Your task to perform on an android device: Search for "razer naga" on amazon, select the first entry, and add it to the cart. Image 0: 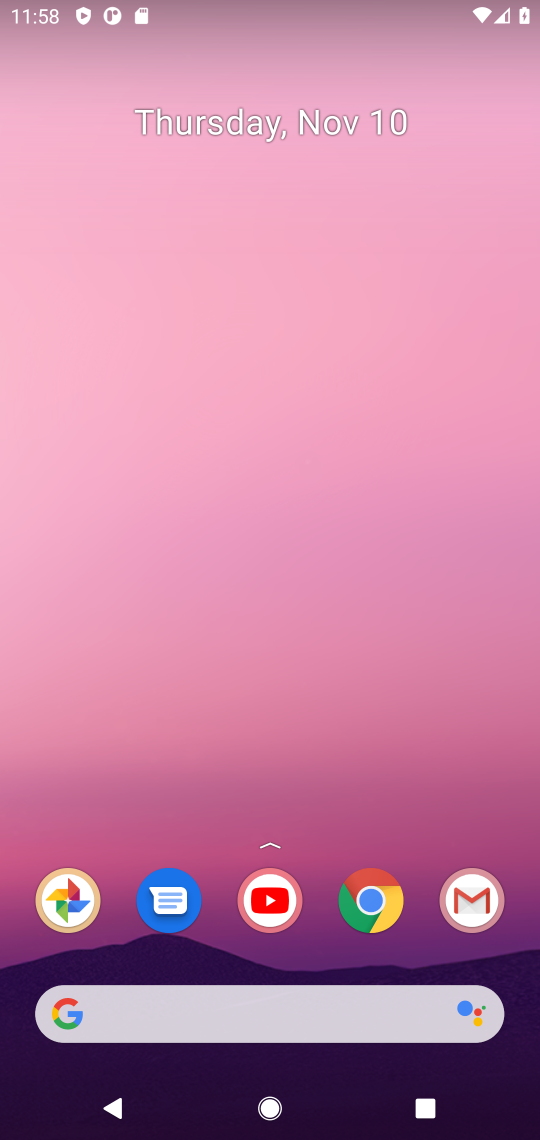
Step 0: click (360, 893)
Your task to perform on an android device: Search for "razer naga" on amazon, select the first entry, and add it to the cart. Image 1: 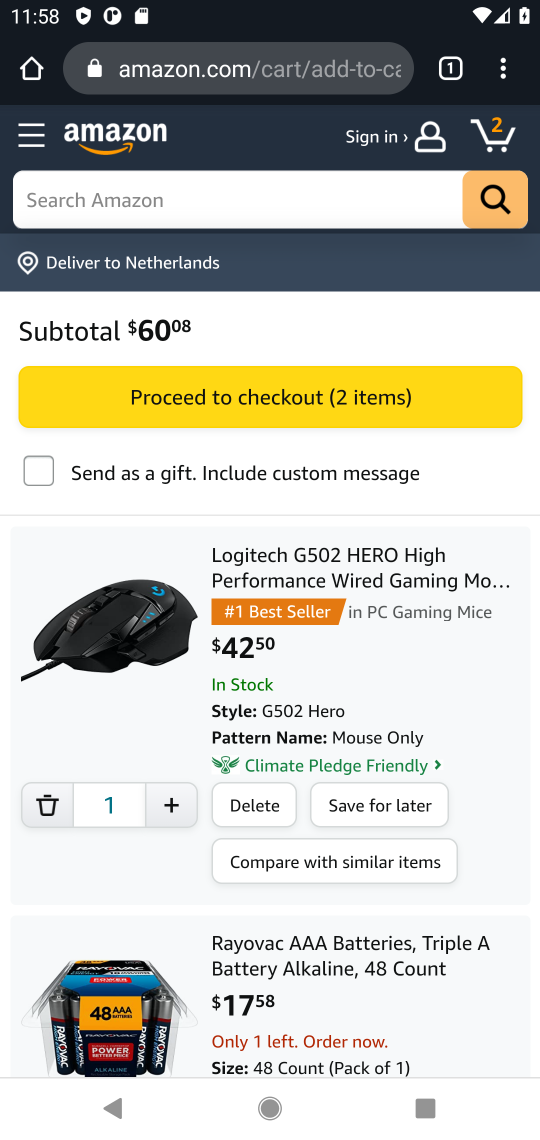
Step 1: click (228, 210)
Your task to perform on an android device: Search for "razer naga" on amazon, select the first entry, and add it to the cart. Image 2: 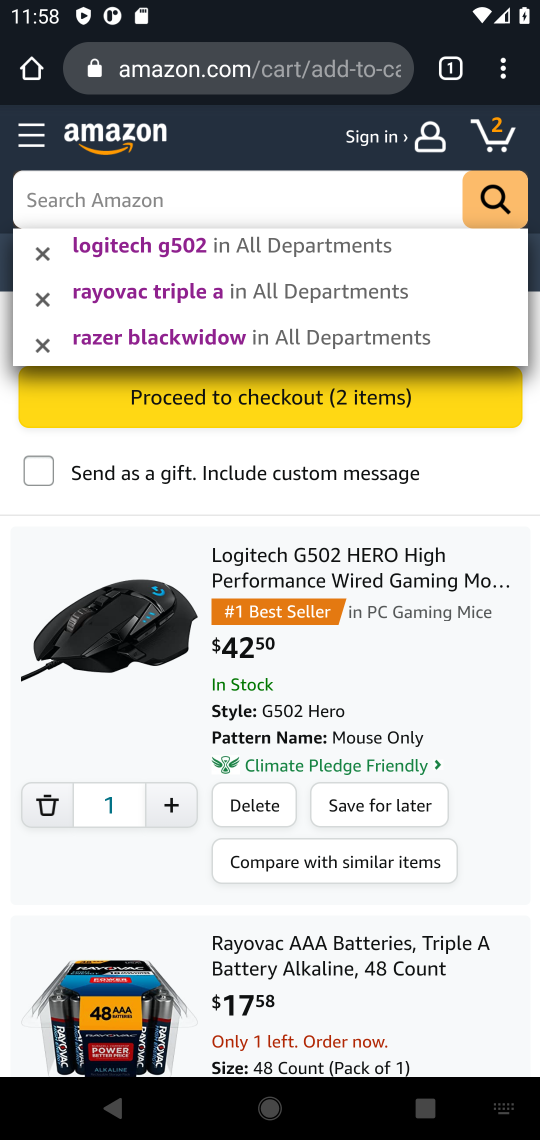
Step 2: type "razer naga"
Your task to perform on an android device: Search for "razer naga" on amazon, select the first entry, and add it to the cart. Image 3: 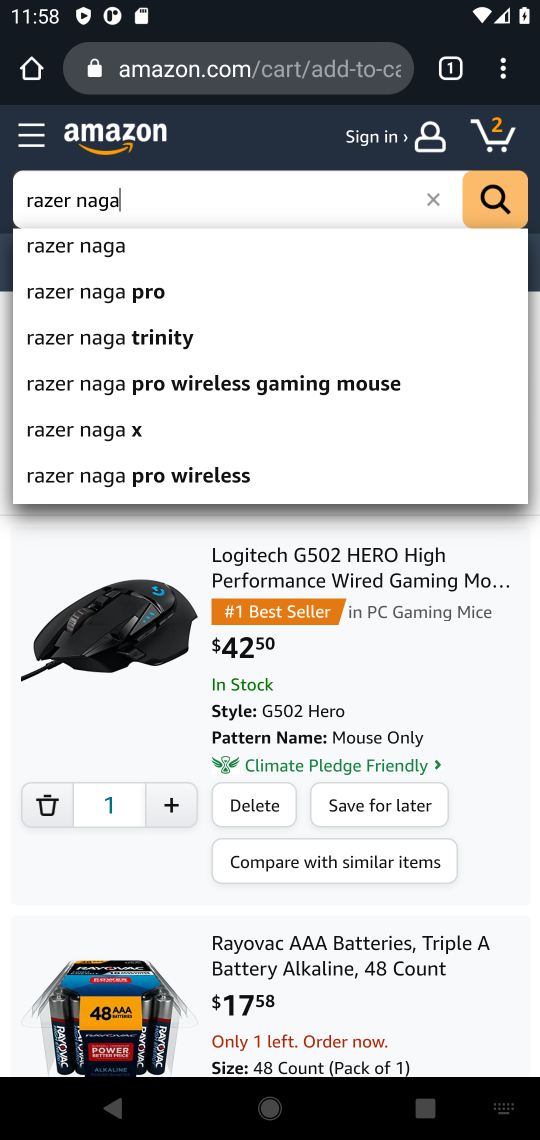
Step 3: press enter
Your task to perform on an android device: Search for "razer naga" on amazon, select the first entry, and add it to the cart. Image 4: 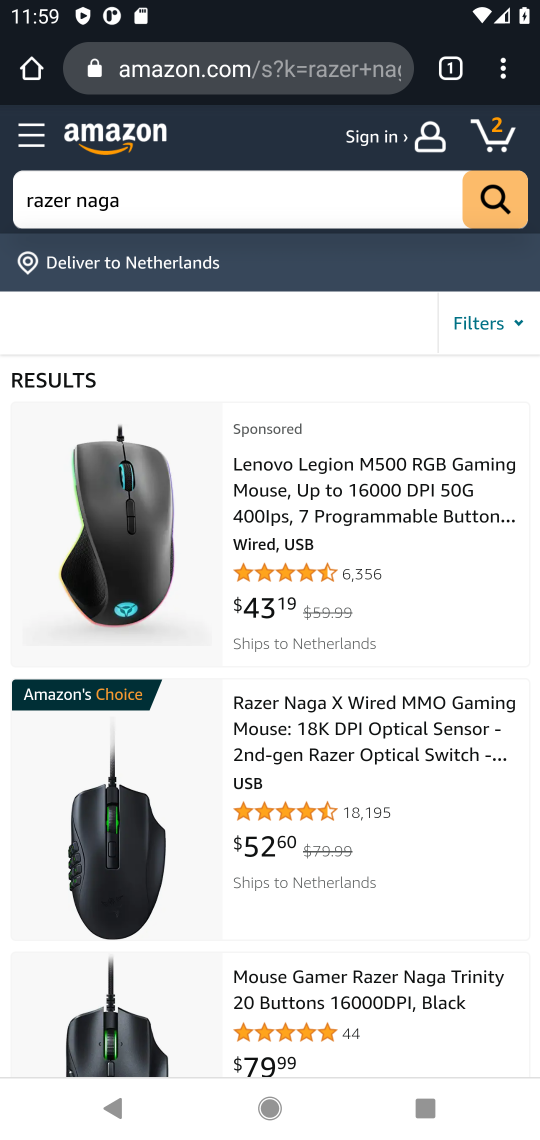
Step 4: task complete